Your task to perform on an android device: Go to notification settings Image 0: 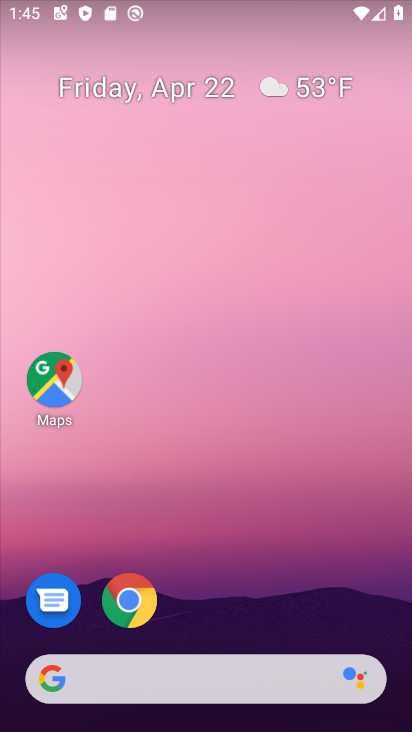
Step 0: press home button
Your task to perform on an android device: Go to notification settings Image 1: 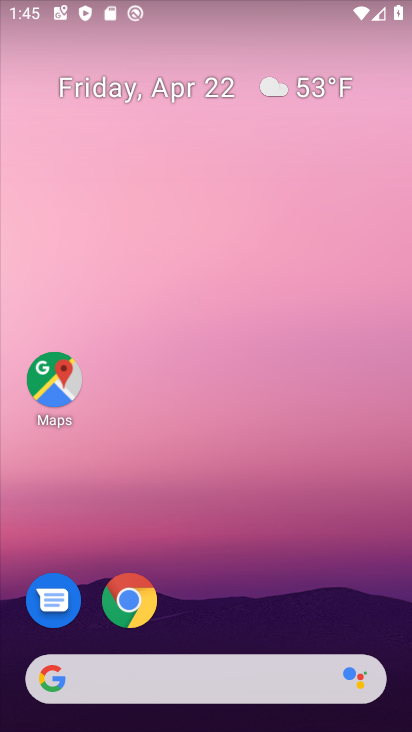
Step 1: drag from (222, 681) to (218, 149)
Your task to perform on an android device: Go to notification settings Image 2: 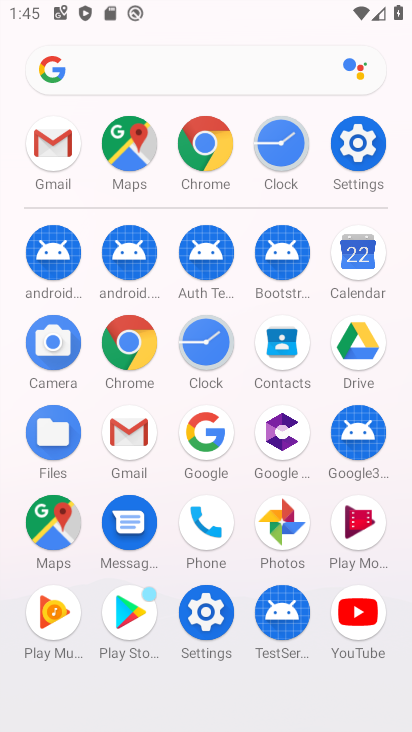
Step 2: click (362, 151)
Your task to perform on an android device: Go to notification settings Image 3: 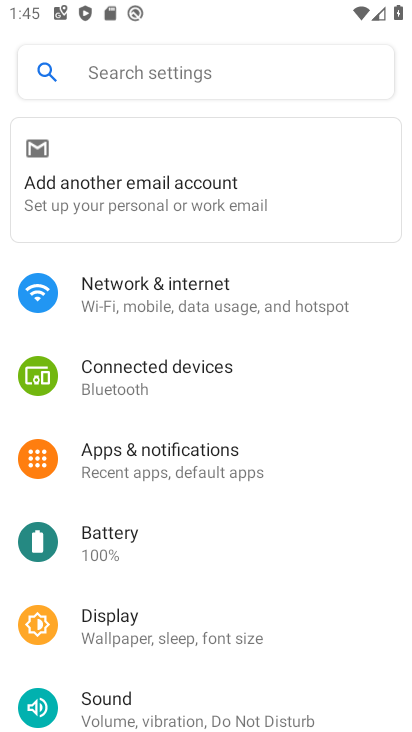
Step 3: click (124, 457)
Your task to perform on an android device: Go to notification settings Image 4: 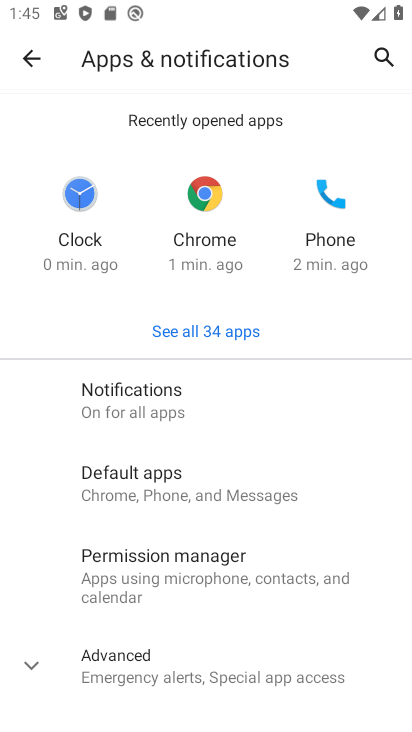
Step 4: click (129, 390)
Your task to perform on an android device: Go to notification settings Image 5: 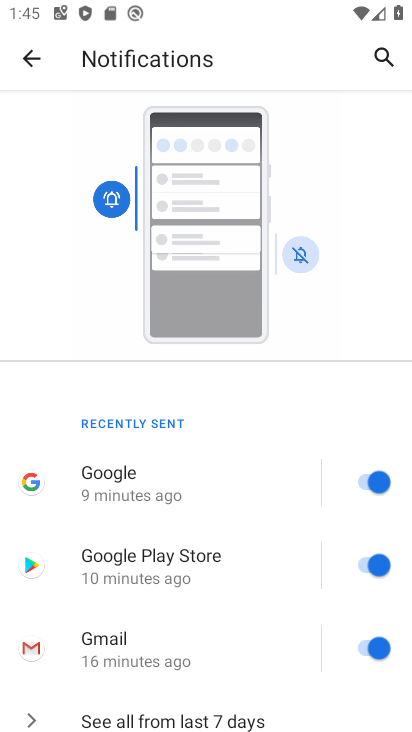
Step 5: task complete